Your task to perform on an android device: Open calendar and show me the second week of next month Image 0: 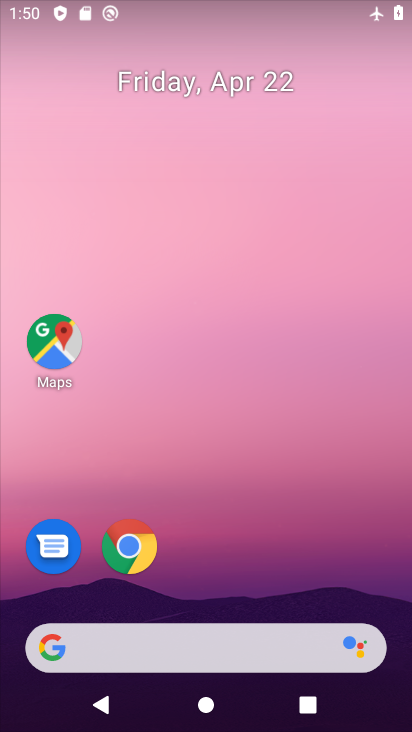
Step 0: drag from (233, 561) to (187, 14)
Your task to perform on an android device: Open calendar and show me the second week of next month Image 1: 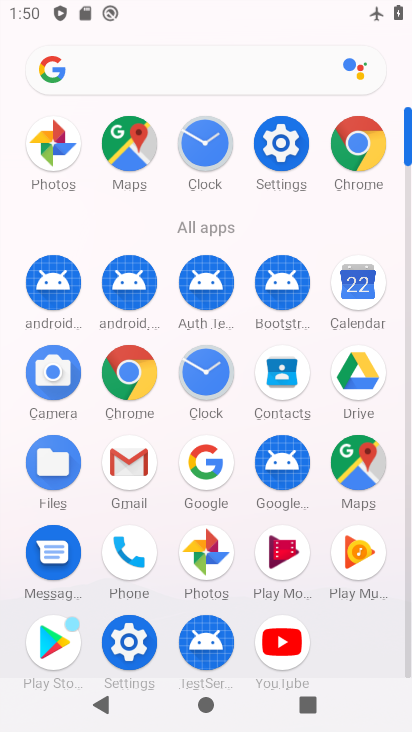
Step 1: click (351, 277)
Your task to perform on an android device: Open calendar and show me the second week of next month Image 2: 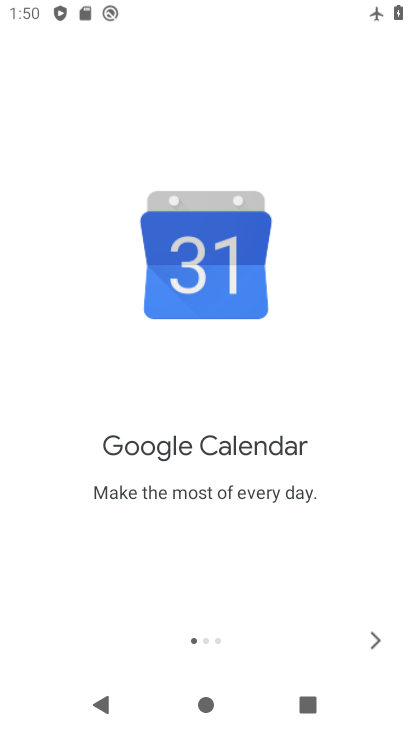
Step 2: click (374, 642)
Your task to perform on an android device: Open calendar and show me the second week of next month Image 3: 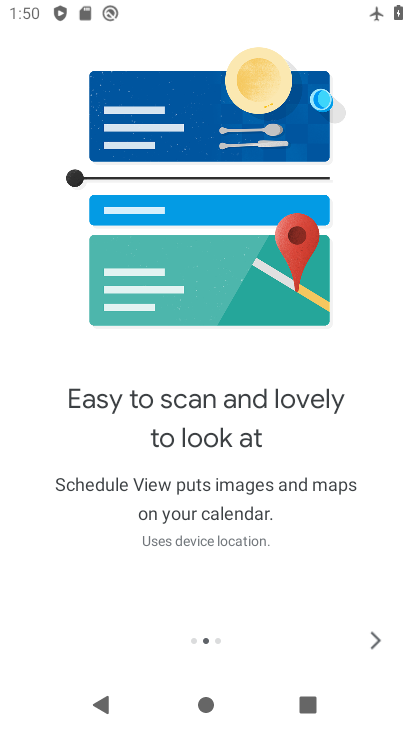
Step 3: click (374, 642)
Your task to perform on an android device: Open calendar and show me the second week of next month Image 4: 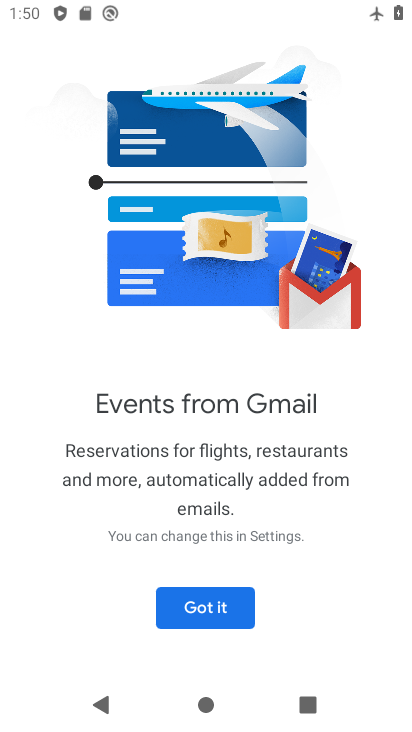
Step 4: click (114, 528)
Your task to perform on an android device: Open calendar and show me the second week of next month Image 5: 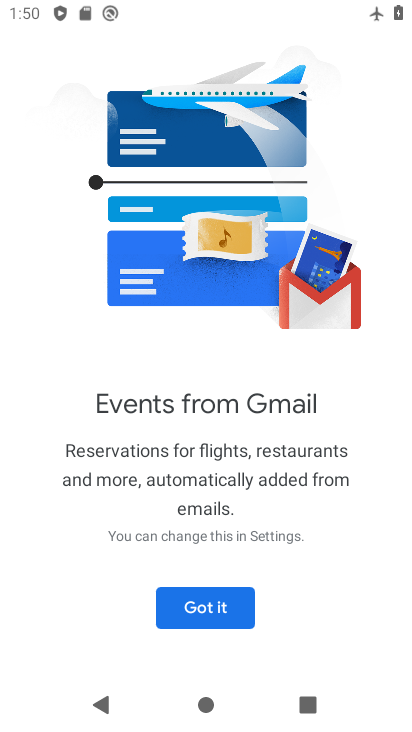
Step 5: click (200, 600)
Your task to perform on an android device: Open calendar and show me the second week of next month Image 6: 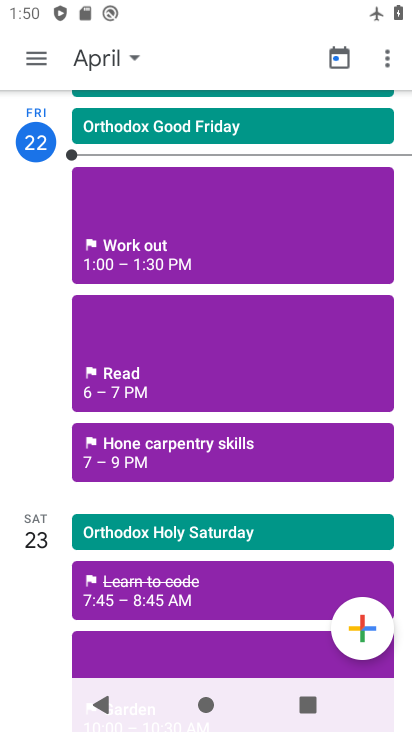
Step 6: click (44, 64)
Your task to perform on an android device: Open calendar and show me the second week of next month Image 7: 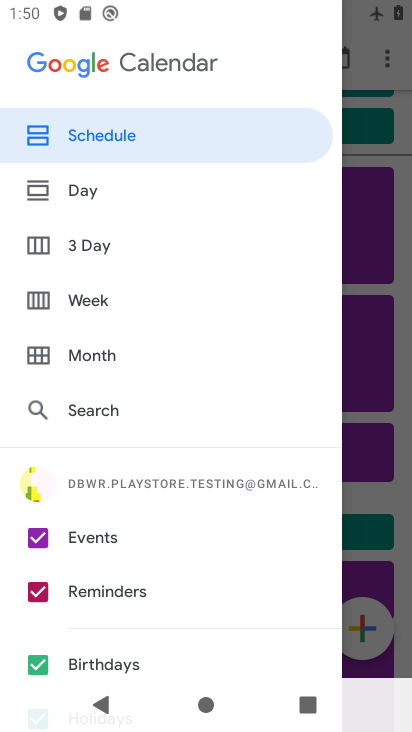
Step 7: click (108, 294)
Your task to perform on an android device: Open calendar and show me the second week of next month Image 8: 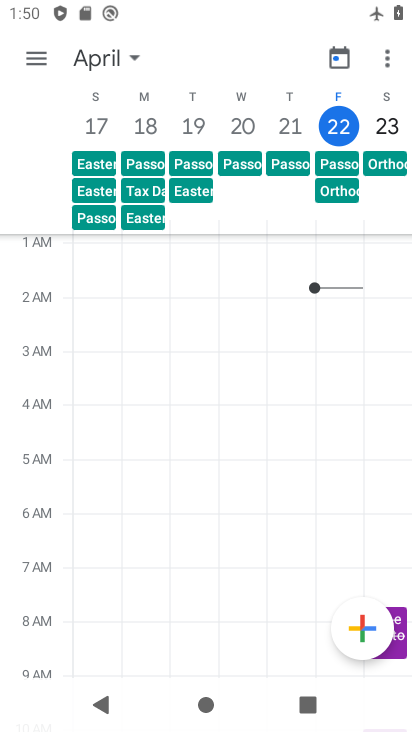
Step 8: click (125, 53)
Your task to perform on an android device: Open calendar and show me the second week of next month Image 9: 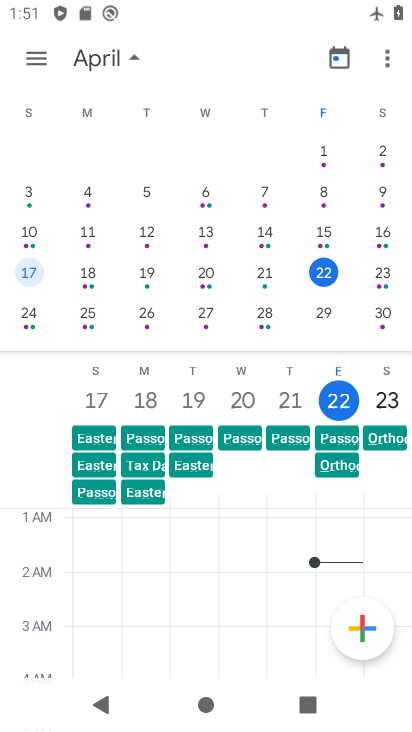
Step 9: drag from (348, 227) to (0, 218)
Your task to perform on an android device: Open calendar and show me the second week of next month Image 10: 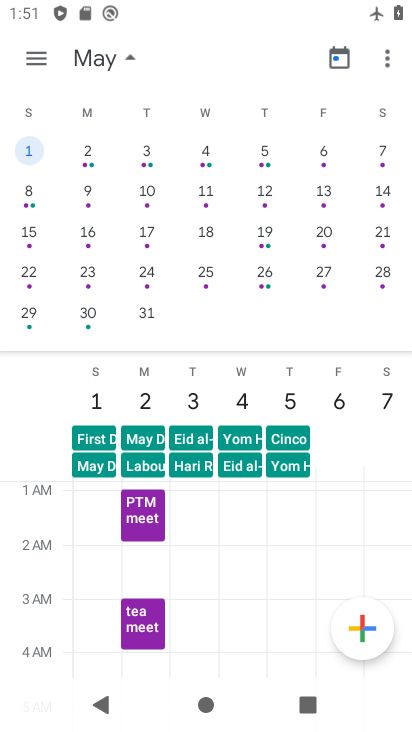
Step 10: click (37, 190)
Your task to perform on an android device: Open calendar and show me the second week of next month Image 11: 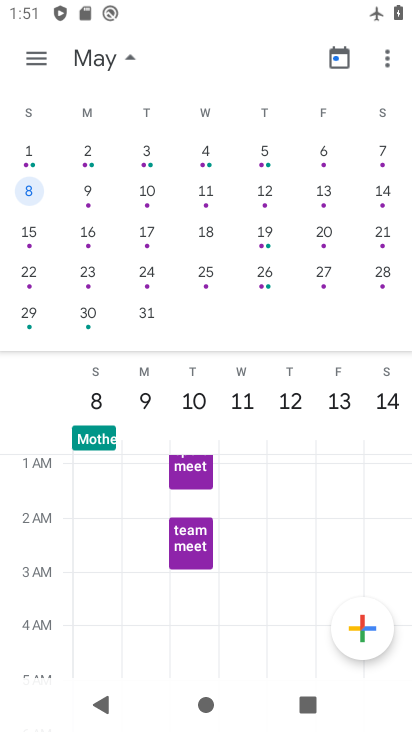
Step 11: task complete